Your task to perform on an android device: open chrome and create a bookmark for the current page Image 0: 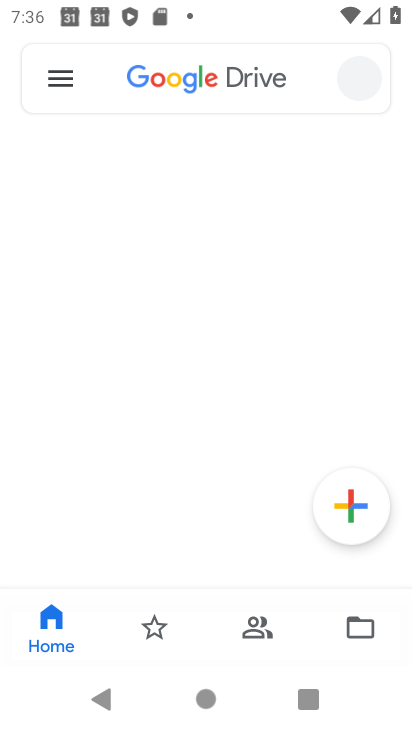
Step 0: drag from (1, 528) to (408, 60)
Your task to perform on an android device: open chrome and create a bookmark for the current page Image 1: 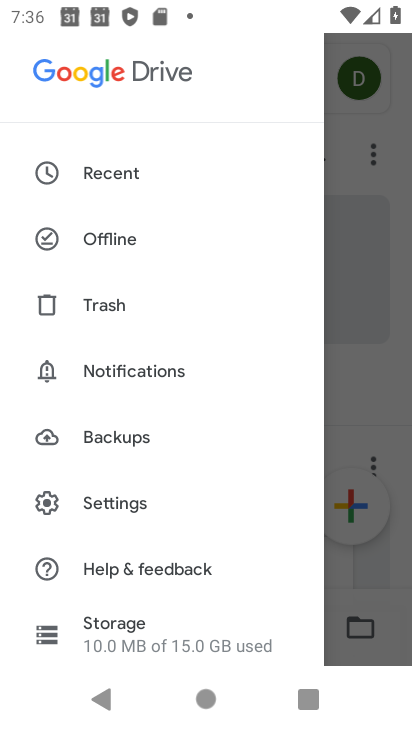
Step 1: press home button
Your task to perform on an android device: open chrome and create a bookmark for the current page Image 2: 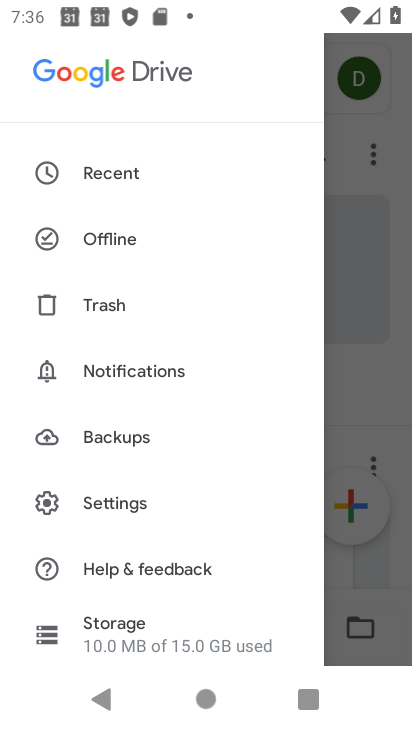
Step 2: drag from (408, 60) to (396, 222)
Your task to perform on an android device: open chrome and create a bookmark for the current page Image 3: 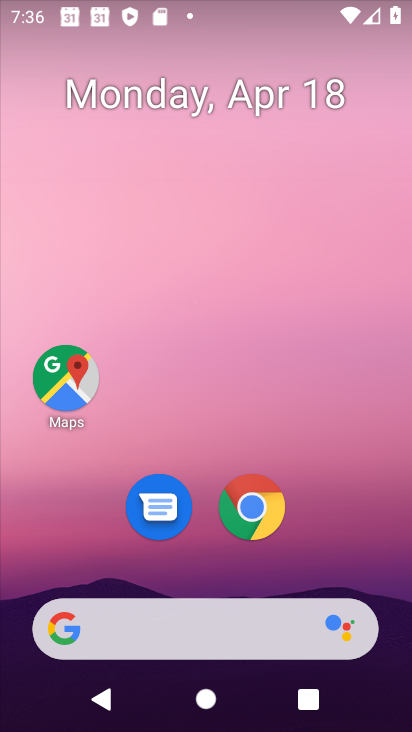
Step 3: drag from (7, 501) to (220, 54)
Your task to perform on an android device: open chrome and create a bookmark for the current page Image 4: 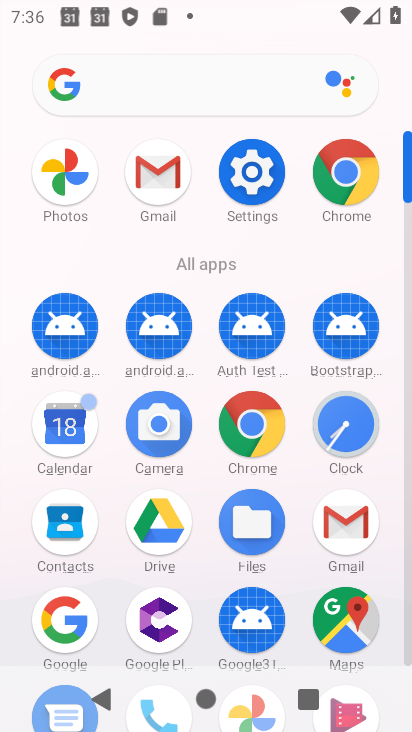
Step 4: click (234, 416)
Your task to perform on an android device: open chrome and create a bookmark for the current page Image 5: 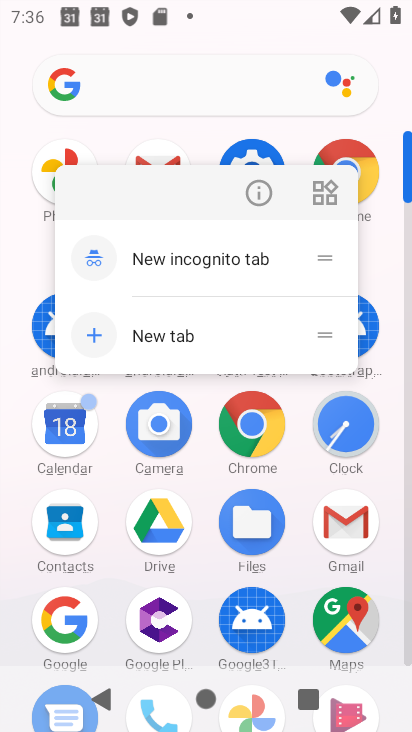
Step 5: click (235, 413)
Your task to perform on an android device: open chrome and create a bookmark for the current page Image 6: 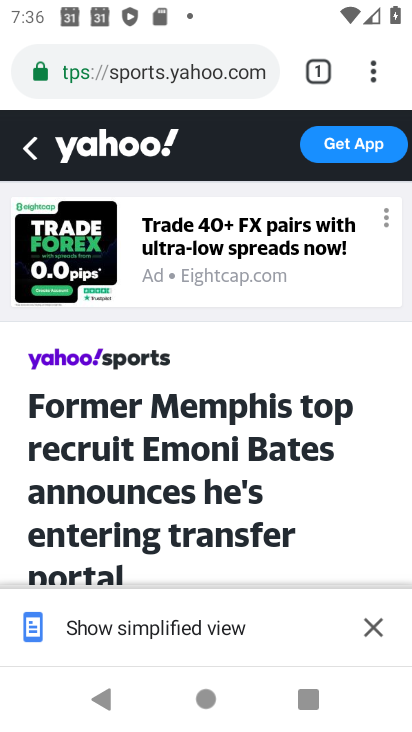
Step 6: click (371, 77)
Your task to perform on an android device: open chrome and create a bookmark for the current page Image 7: 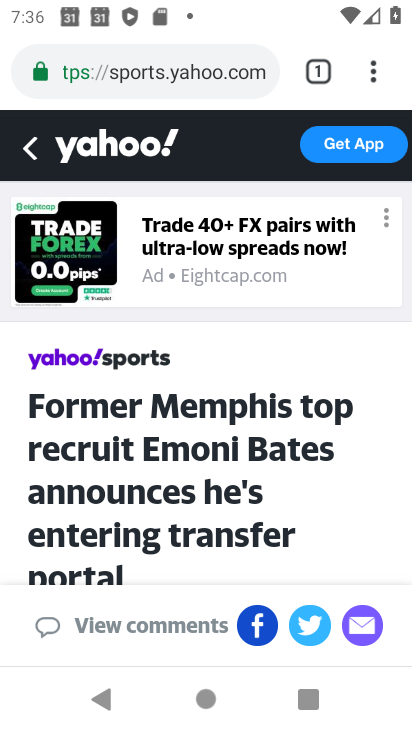
Step 7: click (371, 65)
Your task to perform on an android device: open chrome and create a bookmark for the current page Image 8: 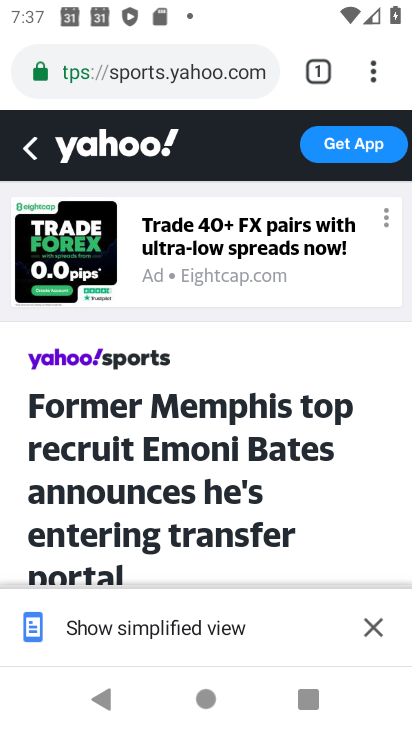
Step 8: click (371, 65)
Your task to perform on an android device: open chrome and create a bookmark for the current page Image 9: 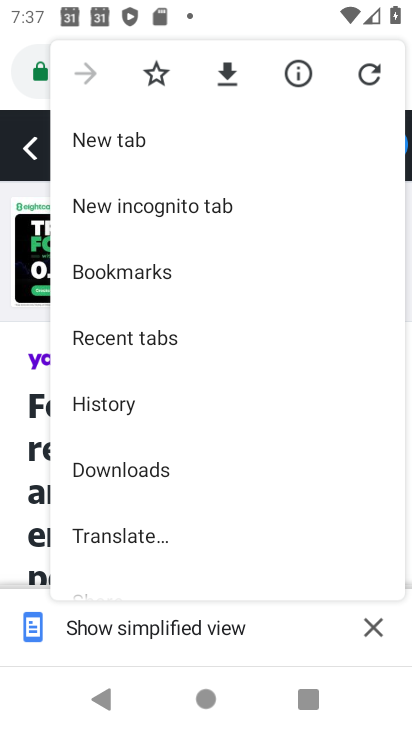
Step 9: click (144, 76)
Your task to perform on an android device: open chrome and create a bookmark for the current page Image 10: 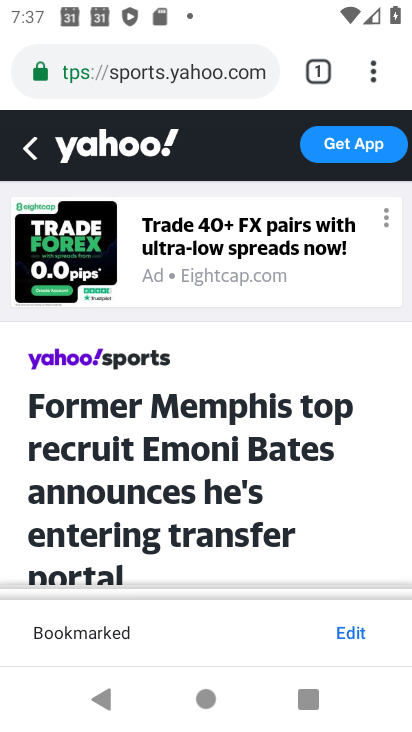
Step 10: task complete